Your task to perform on an android device: turn off wifi Image 0: 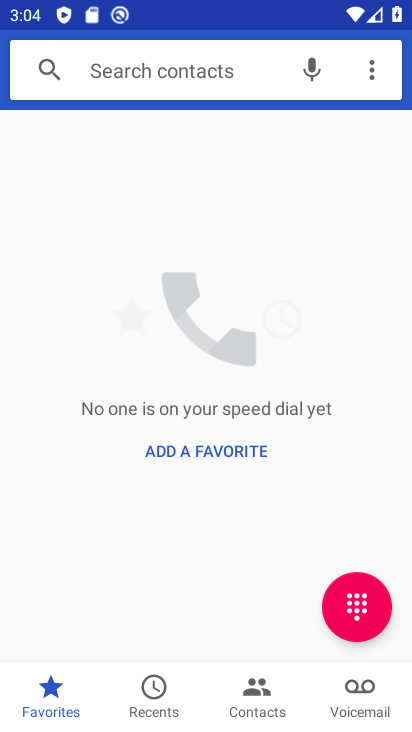
Step 0: press home button
Your task to perform on an android device: turn off wifi Image 1: 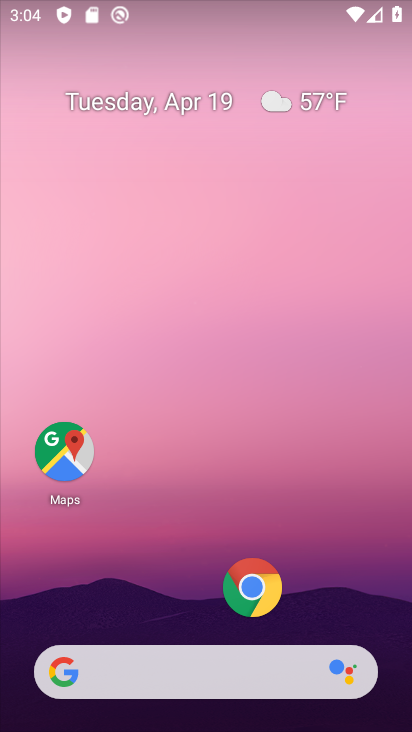
Step 1: drag from (178, 557) to (318, 3)
Your task to perform on an android device: turn off wifi Image 2: 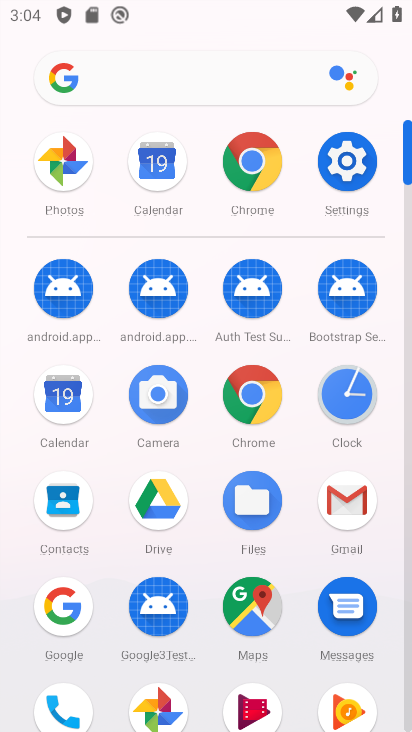
Step 2: click (347, 211)
Your task to perform on an android device: turn off wifi Image 3: 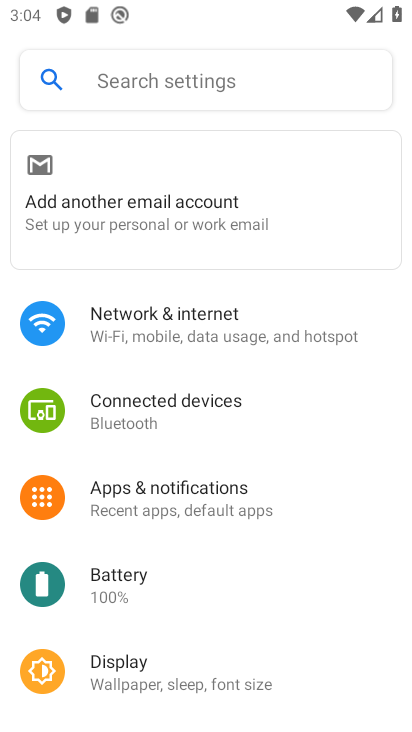
Step 3: click (182, 325)
Your task to perform on an android device: turn off wifi Image 4: 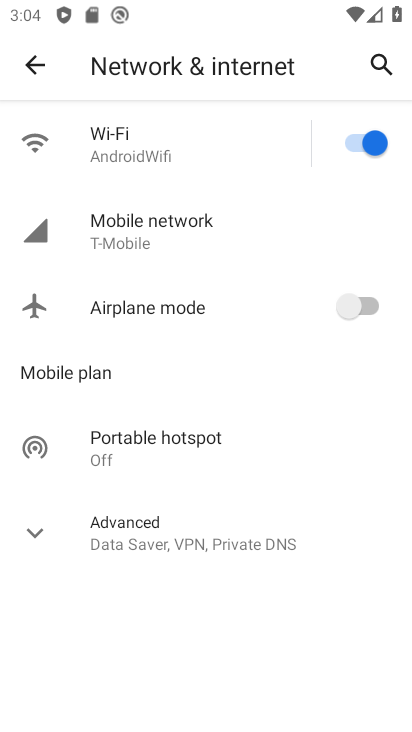
Step 4: click (343, 145)
Your task to perform on an android device: turn off wifi Image 5: 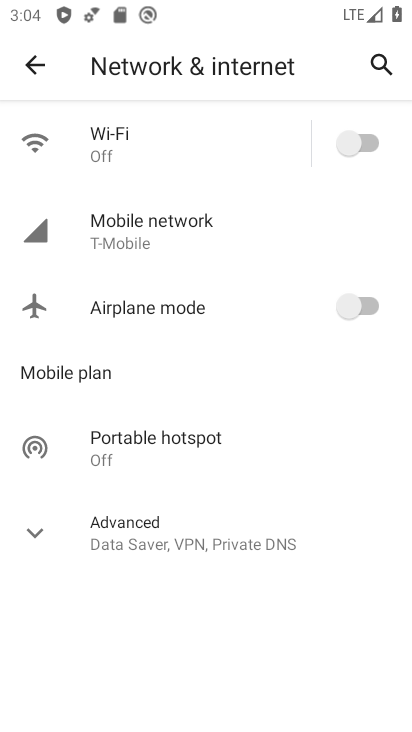
Step 5: task complete